Your task to perform on an android device: Go to Wikipedia Image 0: 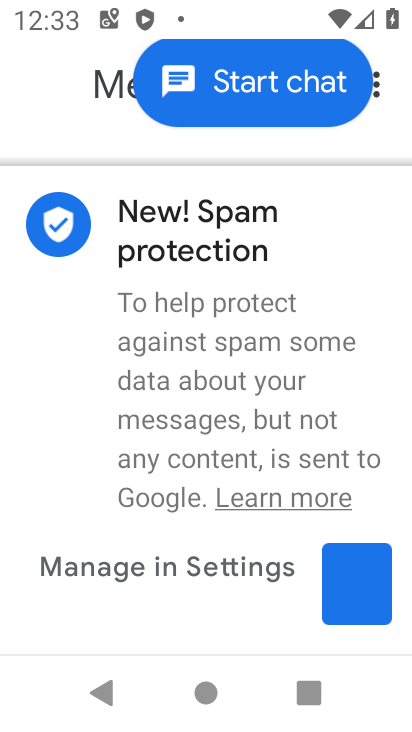
Step 0: press home button
Your task to perform on an android device: Go to Wikipedia Image 1: 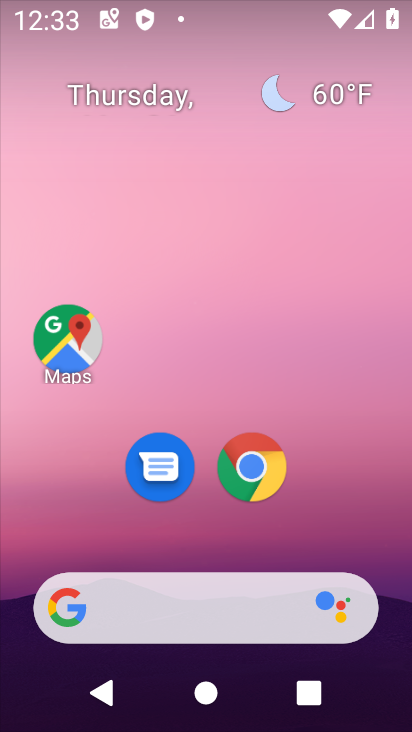
Step 1: click (256, 452)
Your task to perform on an android device: Go to Wikipedia Image 2: 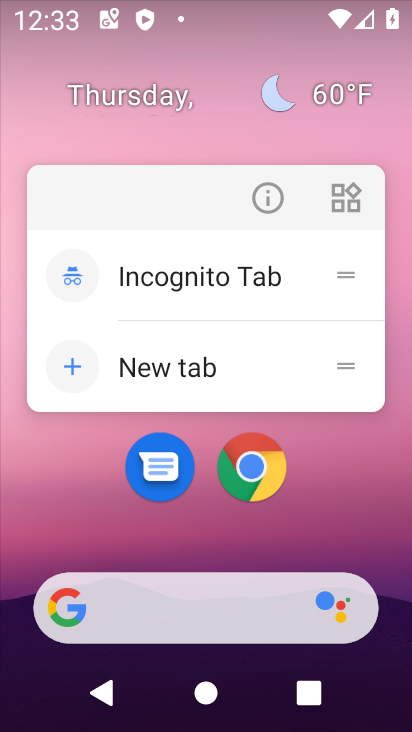
Step 2: click (229, 480)
Your task to perform on an android device: Go to Wikipedia Image 3: 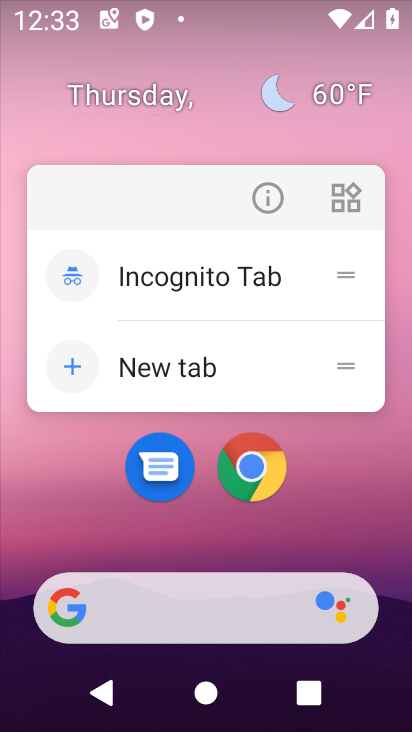
Step 3: click (268, 463)
Your task to perform on an android device: Go to Wikipedia Image 4: 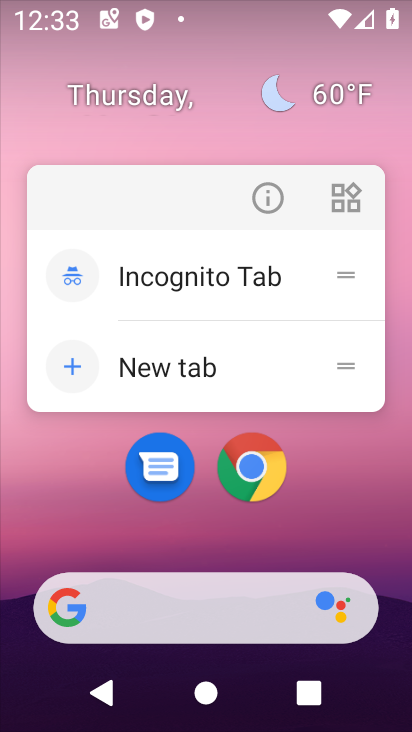
Step 4: click (255, 493)
Your task to perform on an android device: Go to Wikipedia Image 5: 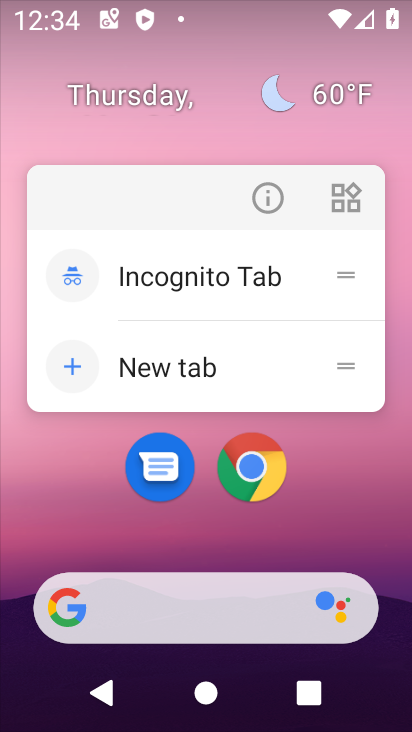
Step 5: click (240, 481)
Your task to perform on an android device: Go to Wikipedia Image 6: 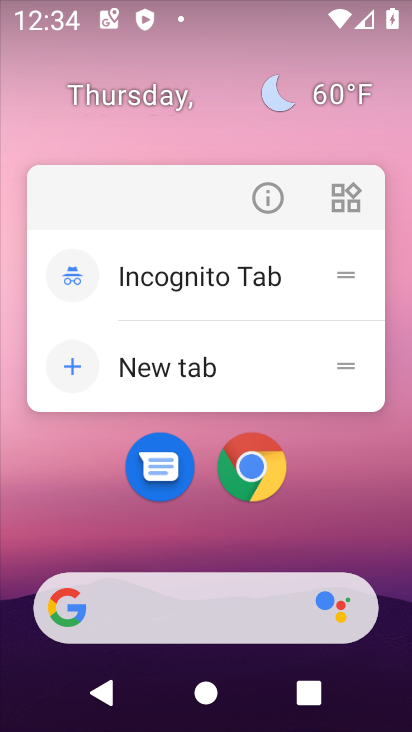
Step 6: click (285, 477)
Your task to perform on an android device: Go to Wikipedia Image 7: 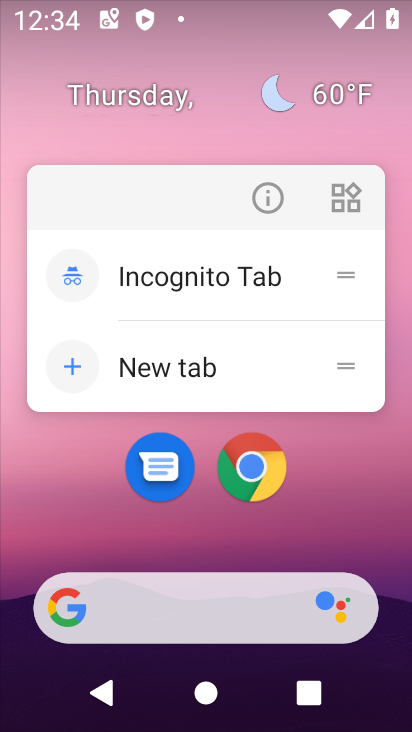
Step 7: click (230, 461)
Your task to perform on an android device: Go to Wikipedia Image 8: 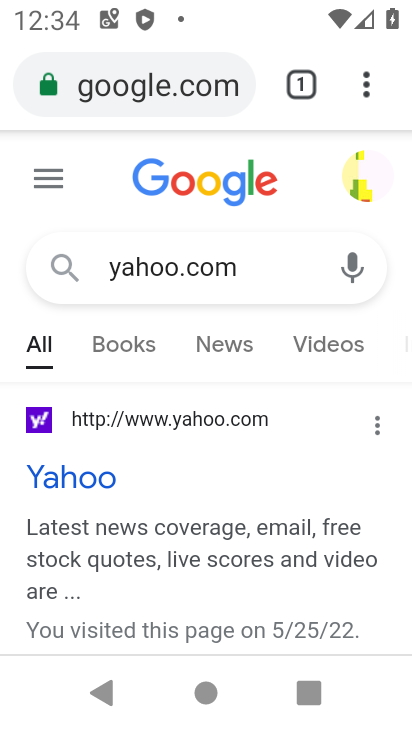
Step 8: click (191, 86)
Your task to perform on an android device: Go to Wikipedia Image 9: 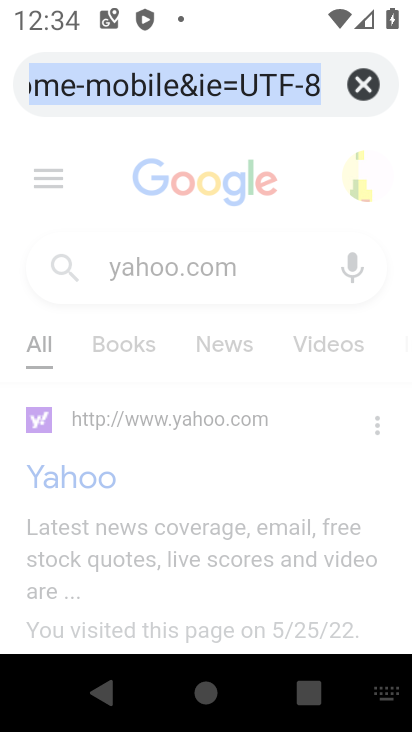
Step 9: type "wikipedia"
Your task to perform on an android device: Go to Wikipedia Image 10: 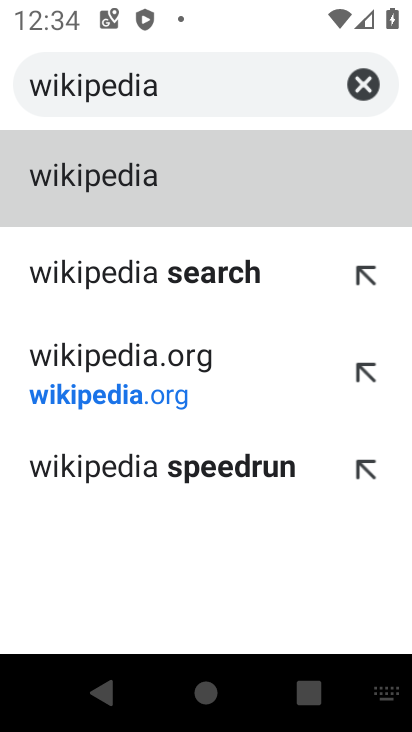
Step 10: click (138, 185)
Your task to perform on an android device: Go to Wikipedia Image 11: 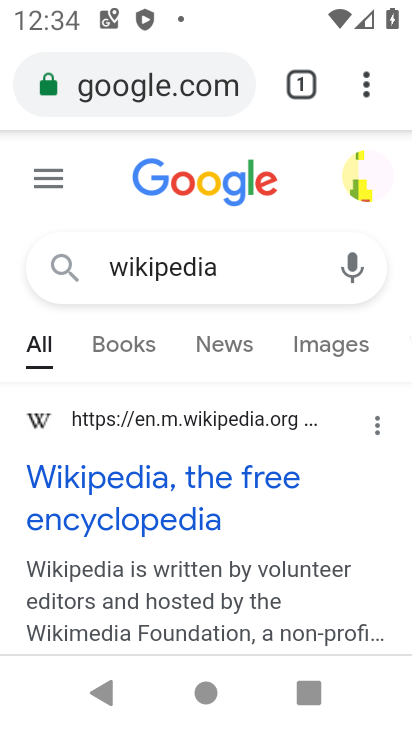
Step 11: task complete